Your task to perform on an android device: Open Wikipedia Image 0: 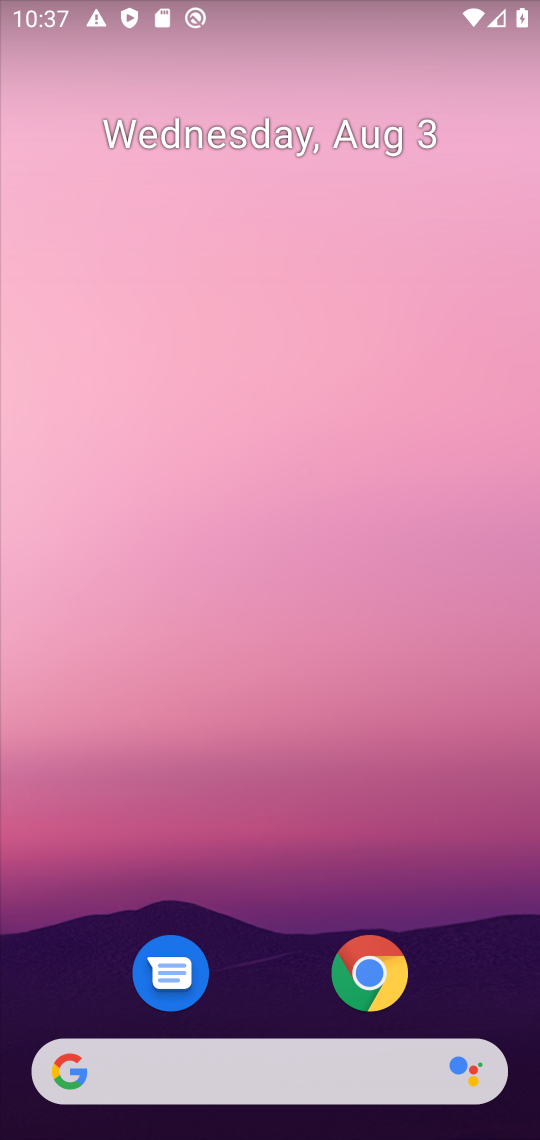
Step 0: click (348, 981)
Your task to perform on an android device: Open Wikipedia Image 1: 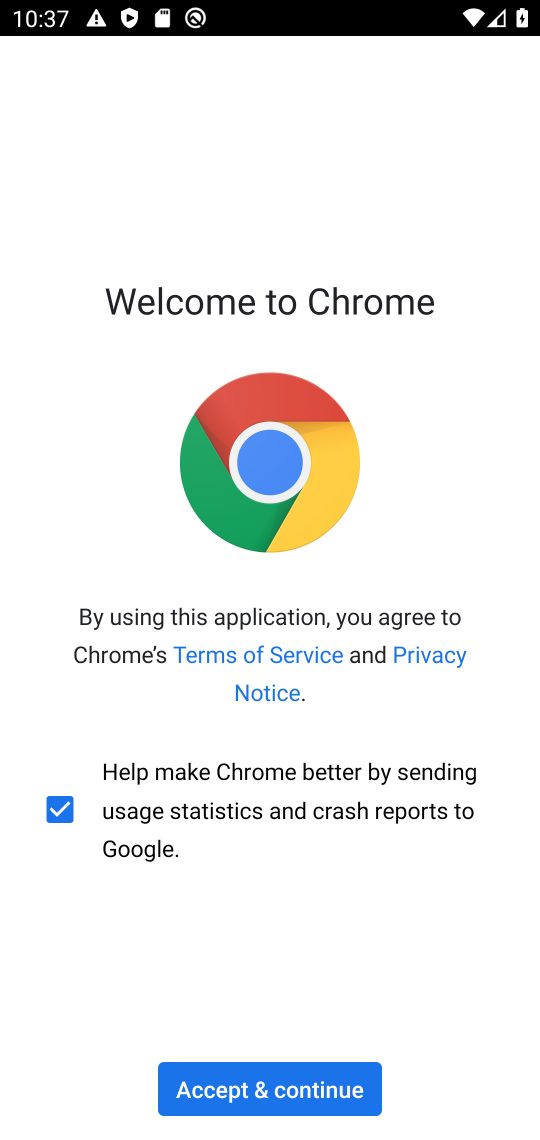
Step 1: click (259, 1076)
Your task to perform on an android device: Open Wikipedia Image 2: 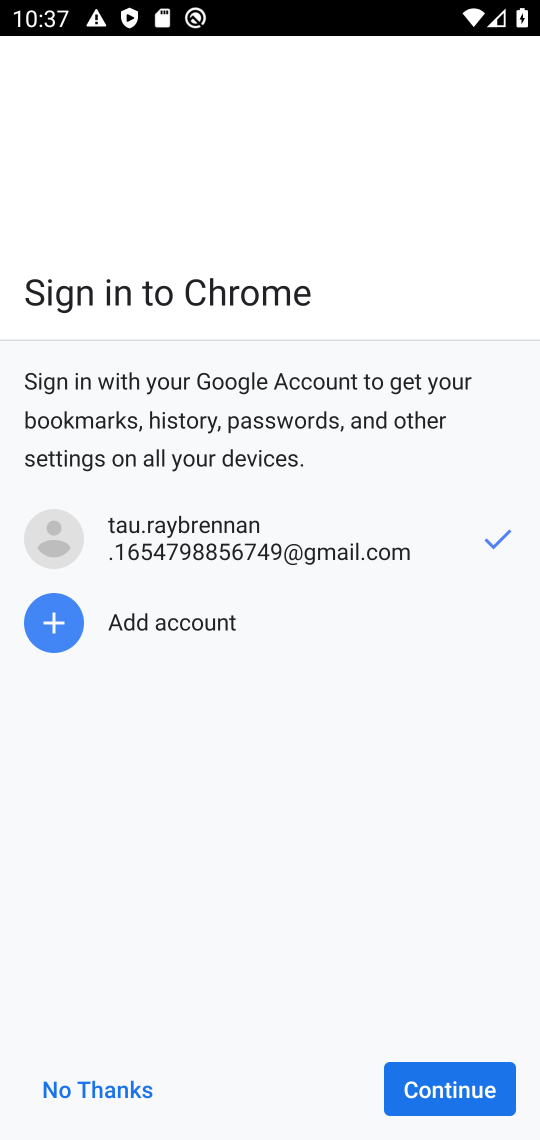
Step 2: click (472, 1109)
Your task to perform on an android device: Open Wikipedia Image 3: 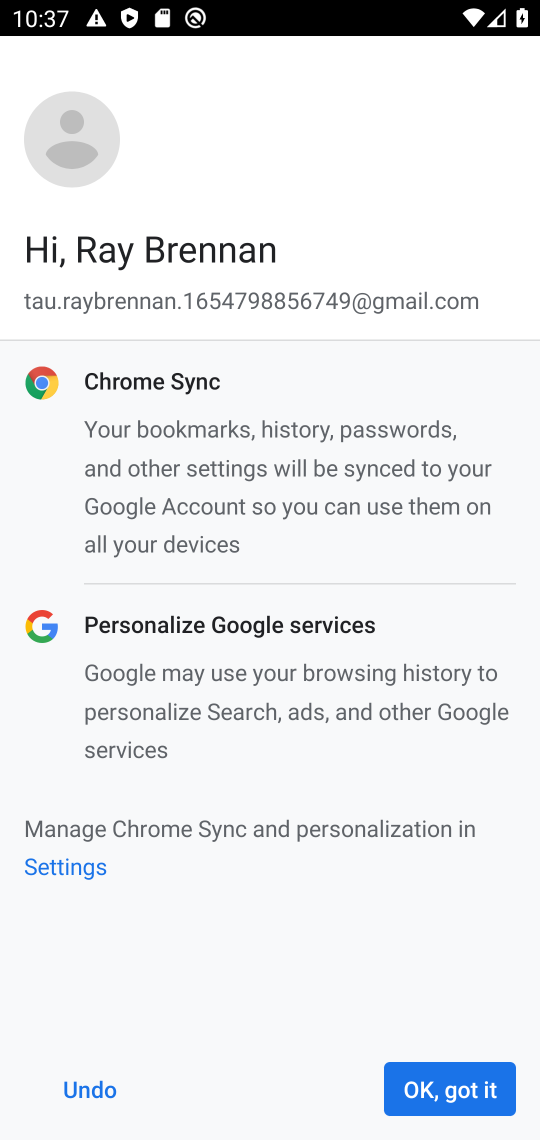
Step 3: click (481, 1098)
Your task to perform on an android device: Open Wikipedia Image 4: 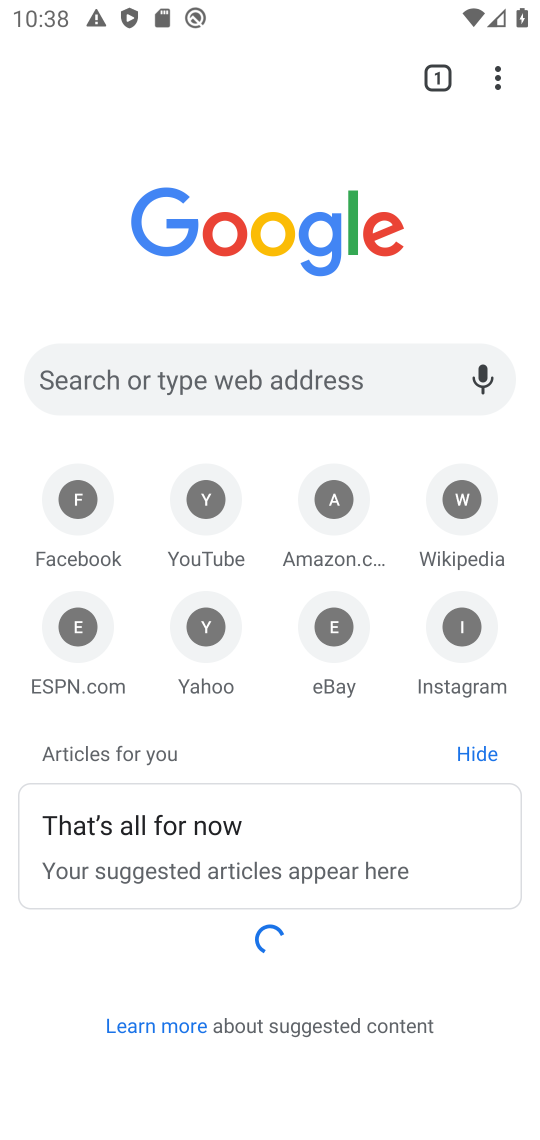
Step 4: click (452, 511)
Your task to perform on an android device: Open Wikipedia Image 5: 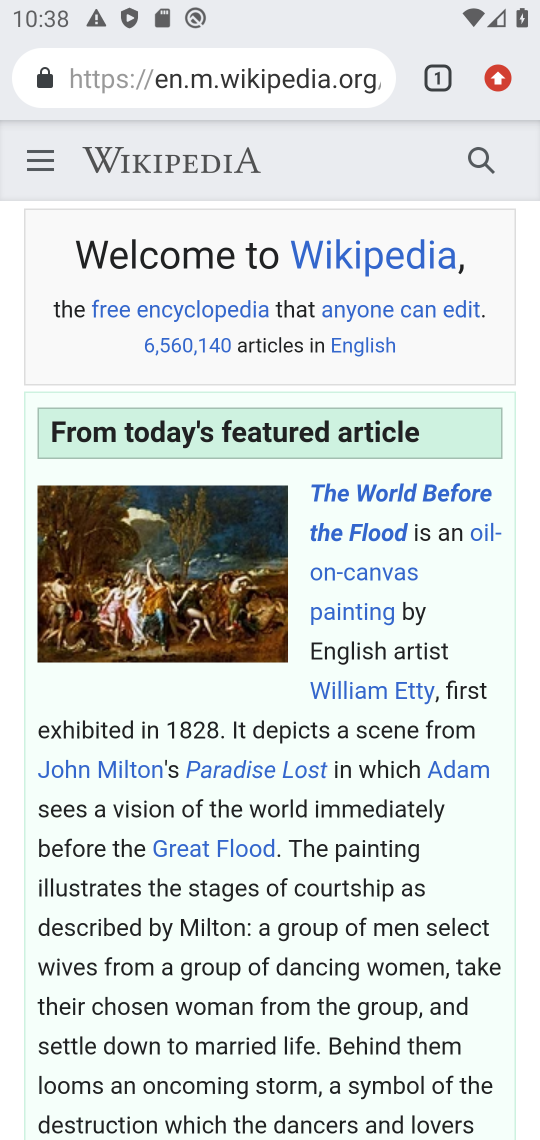
Step 5: task complete